Your task to perform on an android device: Open the map Image 0: 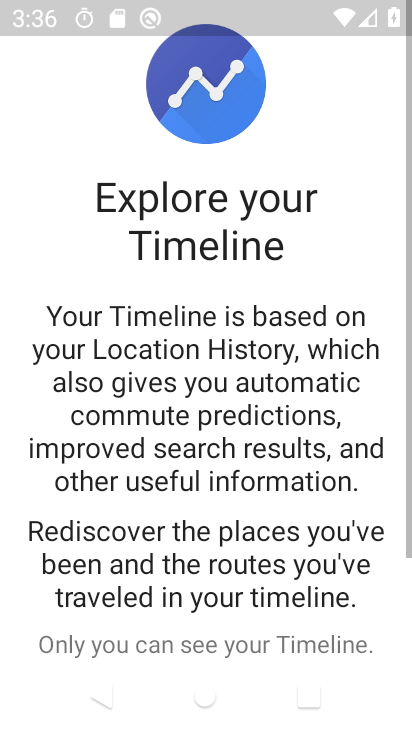
Step 0: press home button
Your task to perform on an android device: Open the map Image 1: 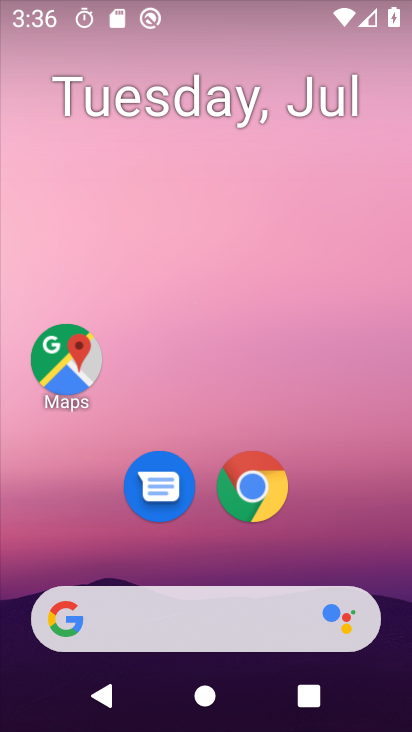
Step 1: drag from (359, 536) to (363, 71)
Your task to perform on an android device: Open the map Image 2: 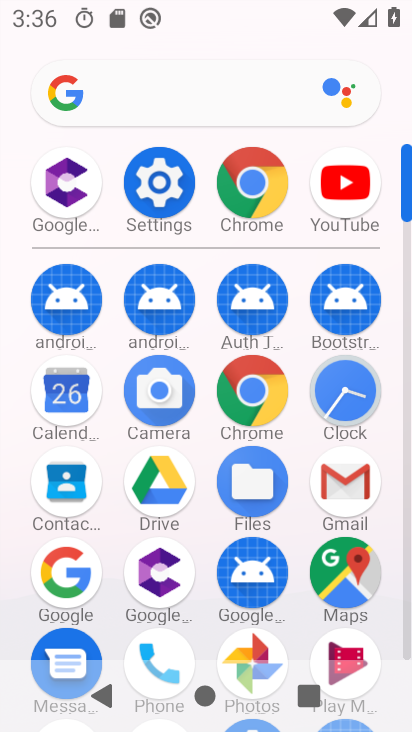
Step 2: click (348, 566)
Your task to perform on an android device: Open the map Image 3: 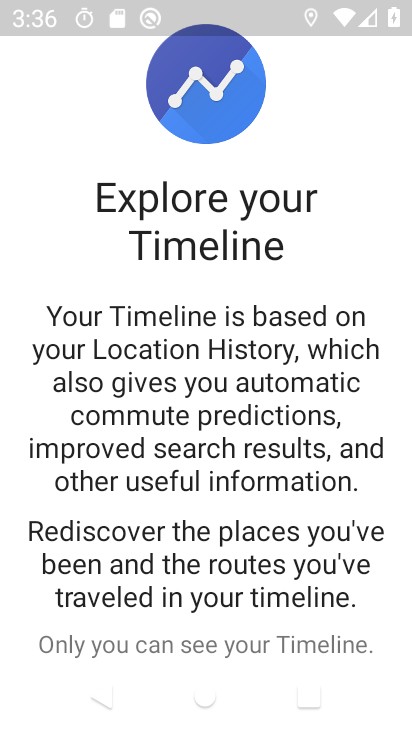
Step 3: task complete